Your task to perform on an android device: Open Chrome and go to settings Image 0: 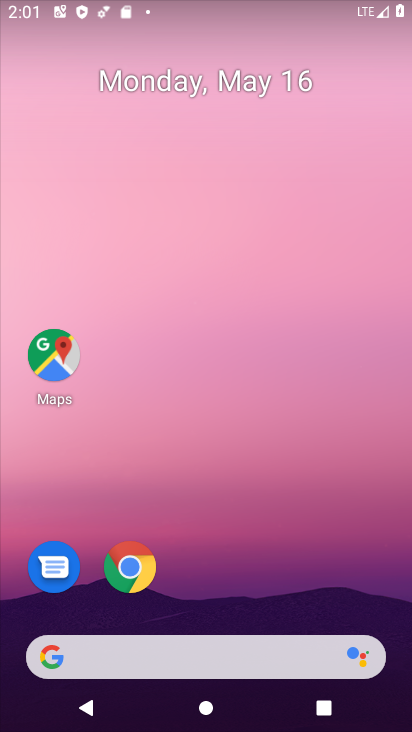
Step 0: drag from (262, 587) to (255, 119)
Your task to perform on an android device: Open Chrome and go to settings Image 1: 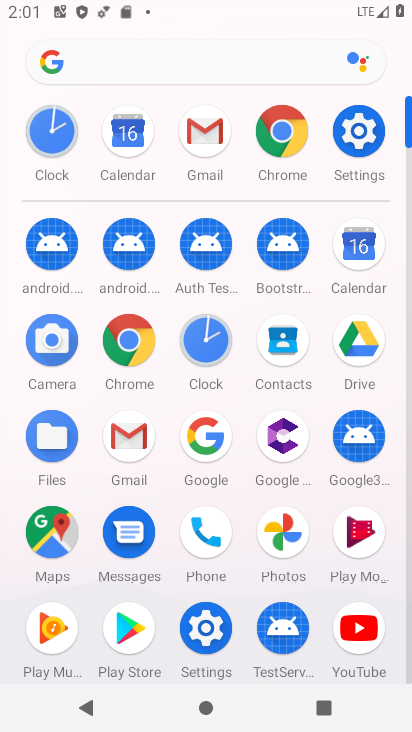
Step 1: click (275, 134)
Your task to perform on an android device: Open Chrome and go to settings Image 2: 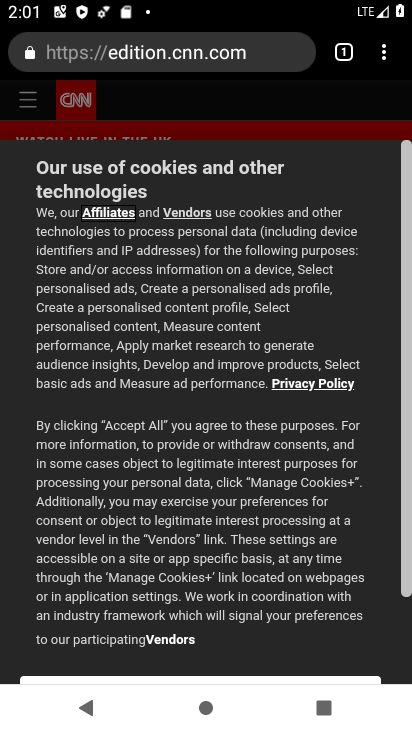
Step 2: click (377, 49)
Your task to perform on an android device: Open Chrome and go to settings Image 3: 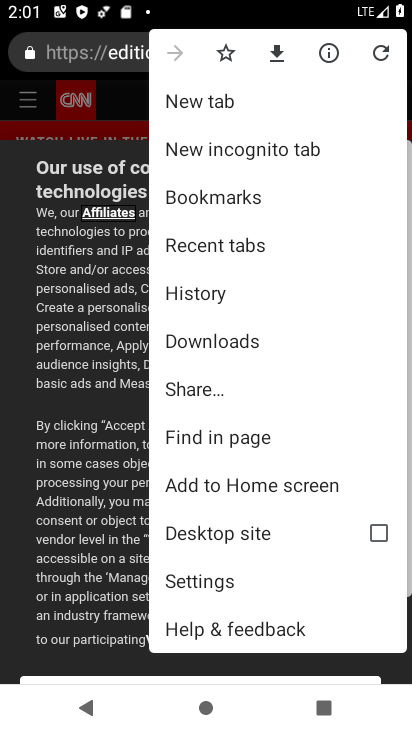
Step 3: click (226, 575)
Your task to perform on an android device: Open Chrome and go to settings Image 4: 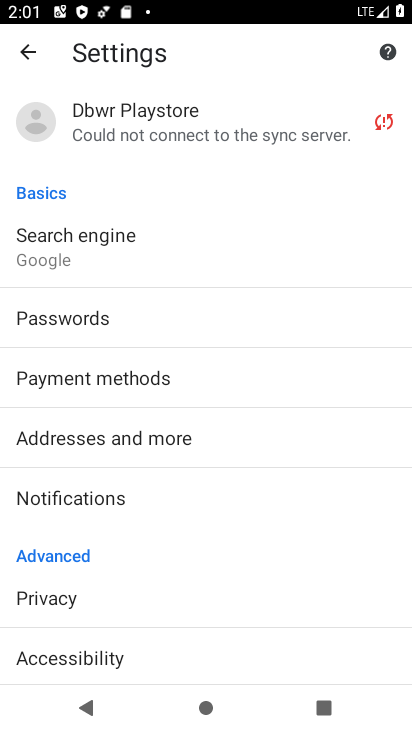
Step 4: task complete